Your task to perform on an android device: install app "Viber Messenger" Image 0: 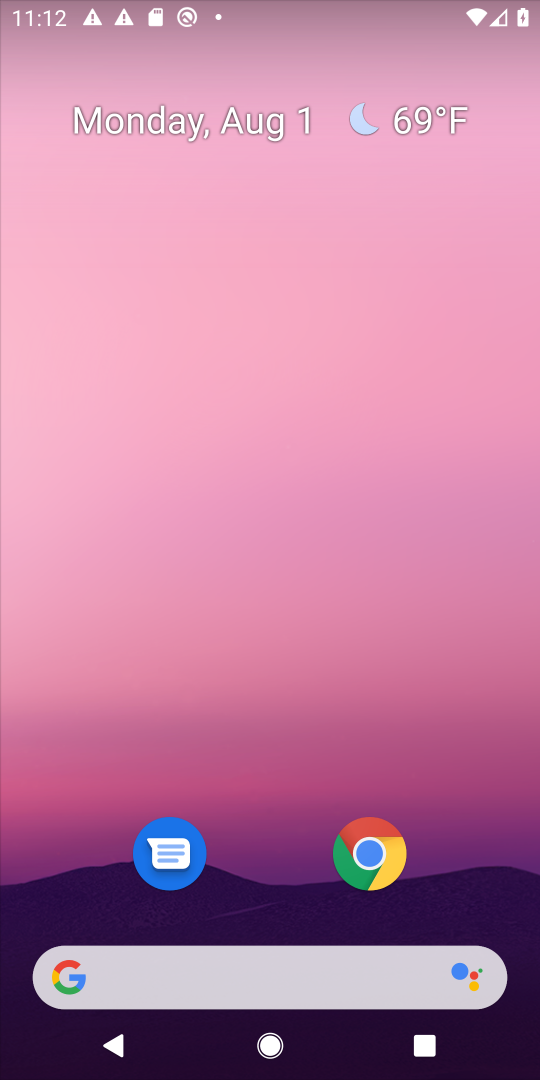
Step 0: drag from (255, 887) to (293, 194)
Your task to perform on an android device: install app "Viber Messenger" Image 1: 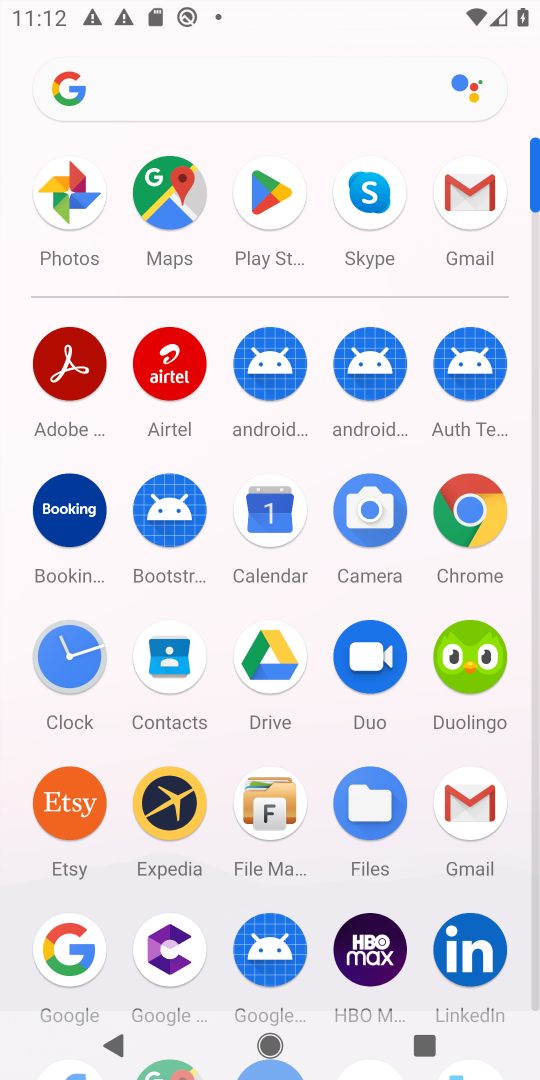
Step 1: drag from (236, 903) to (223, 326)
Your task to perform on an android device: install app "Viber Messenger" Image 2: 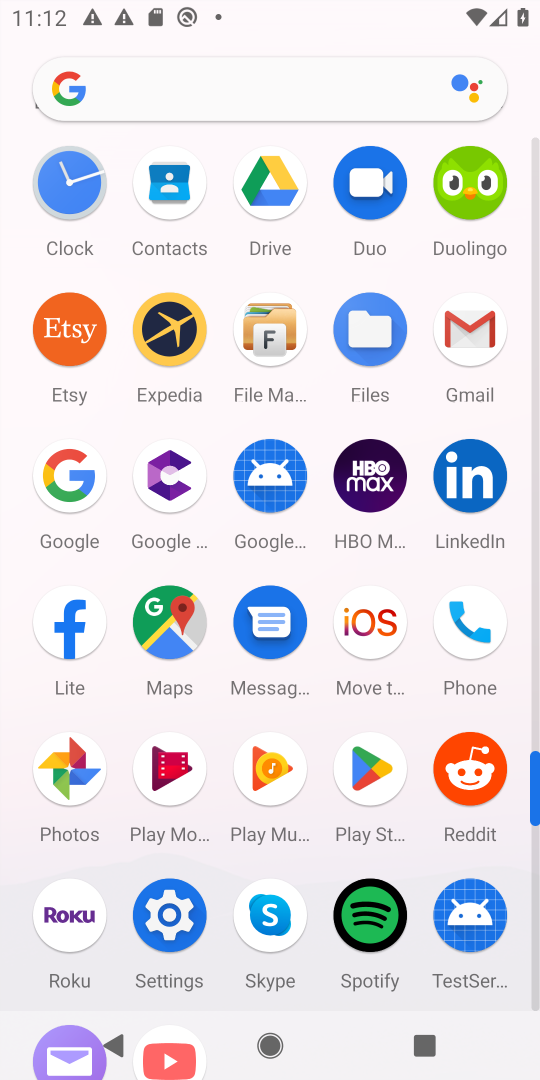
Step 2: click (390, 759)
Your task to perform on an android device: install app "Viber Messenger" Image 3: 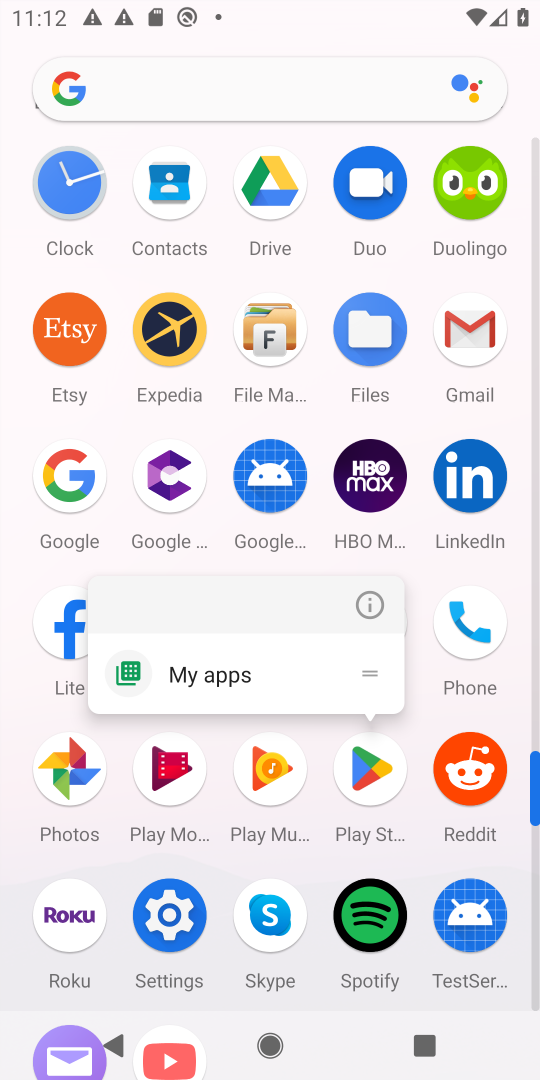
Step 3: click (386, 603)
Your task to perform on an android device: install app "Viber Messenger" Image 4: 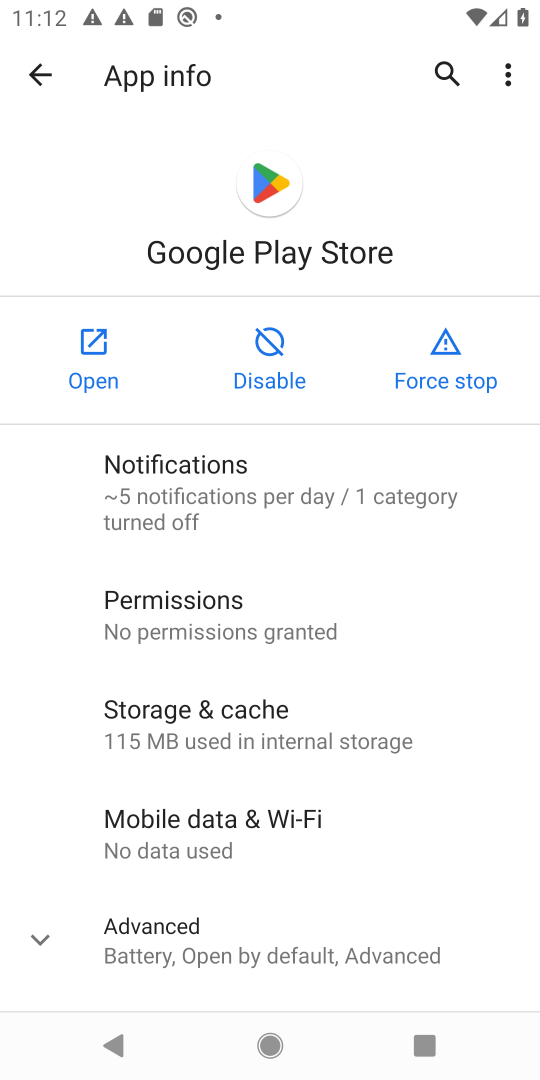
Step 4: click (89, 344)
Your task to perform on an android device: install app "Viber Messenger" Image 5: 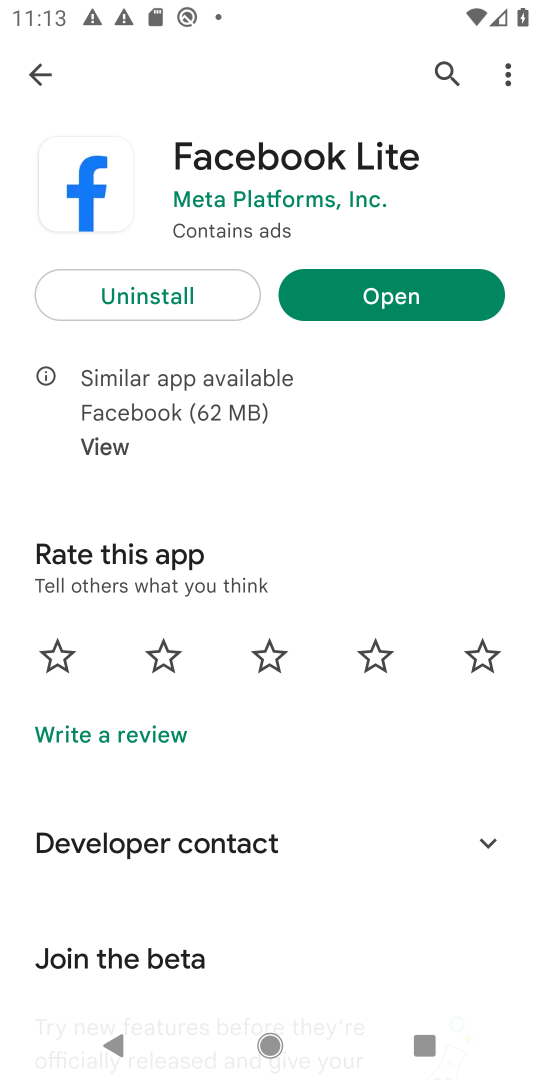
Step 5: click (444, 61)
Your task to perform on an android device: install app "Viber Messenger" Image 6: 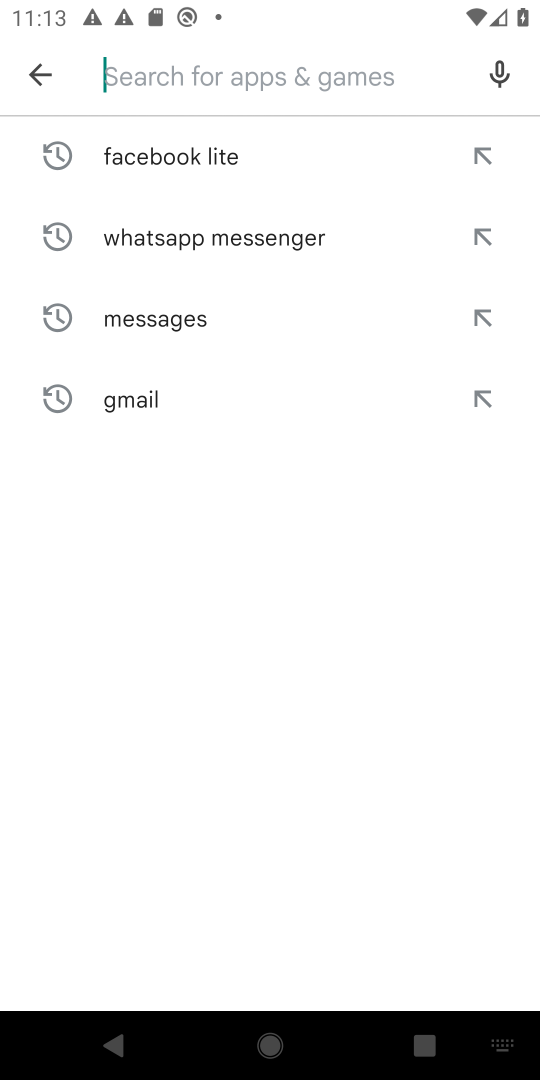
Step 6: type "Viber Messenger"
Your task to perform on an android device: install app "Viber Messenger" Image 7: 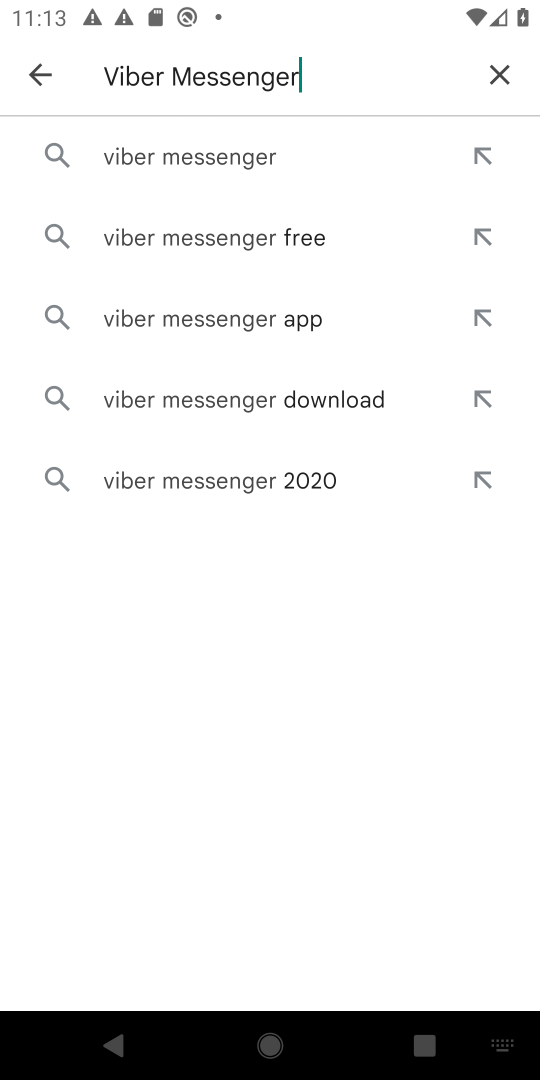
Step 7: click (185, 151)
Your task to perform on an android device: install app "Viber Messenger" Image 8: 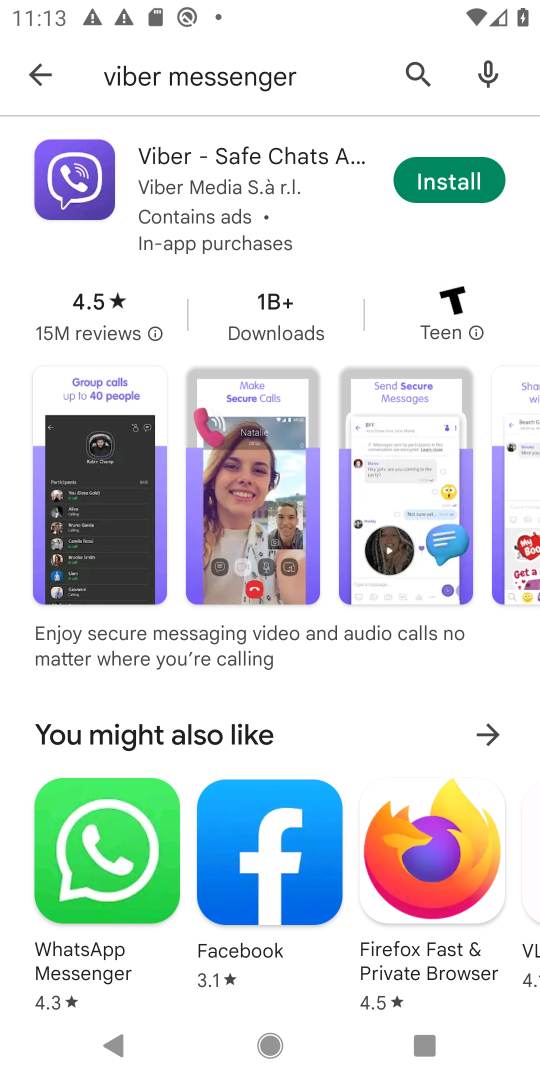
Step 8: click (214, 168)
Your task to perform on an android device: install app "Viber Messenger" Image 9: 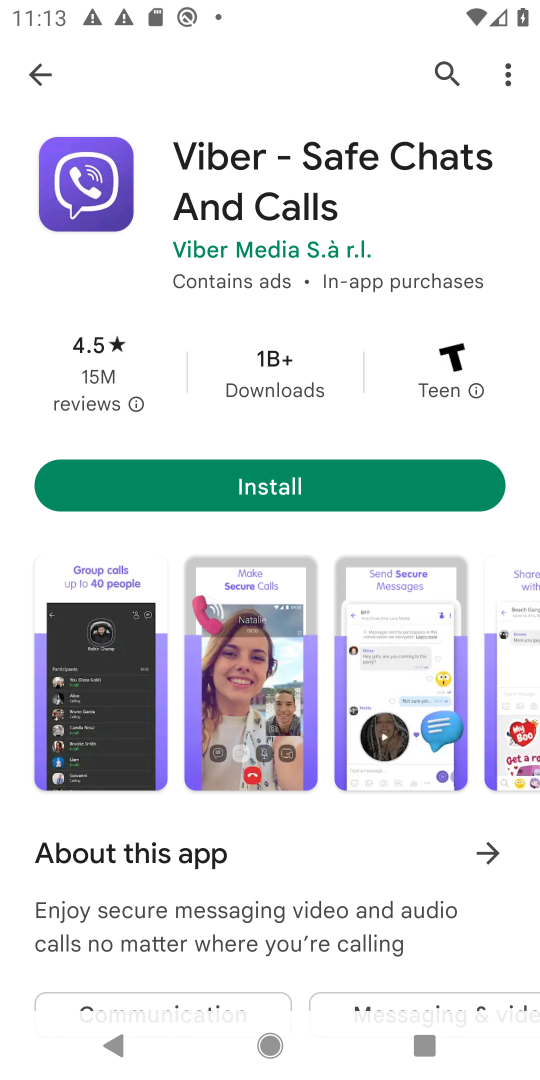
Step 9: task complete